Your task to perform on an android device: What's the weather going to be tomorrow? Image 0: 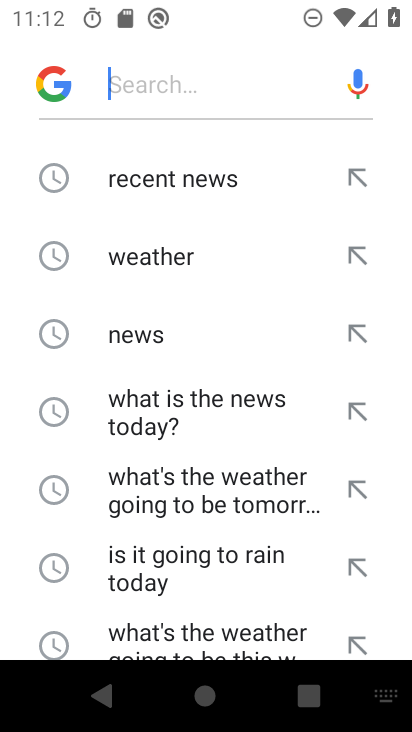
Step 0: press home button
Your task to perform on an android device: What's the weather going to be tomorrow? Image 1: 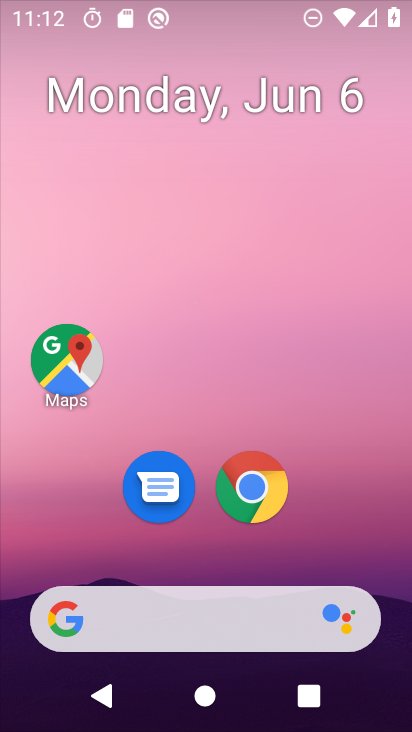
Step 1: drag from (400, 635) to (280, 117)
Your task to perform on an android device: What's the weather going to be tomorrow? Image 2: 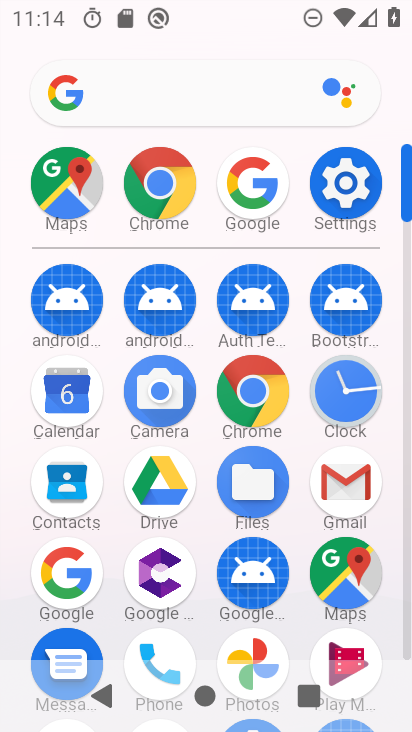
Step 2: click (55, 574)
Your task to perform on an android device: What's the weather going to be tomorrow? Image 3: 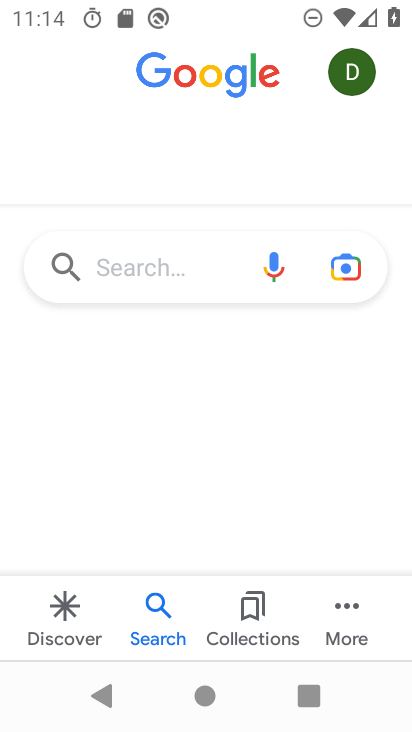
Step 3: click (166, 255)
Your task to perform on an android device: What's the weather going to be tomorrow? Image 4: 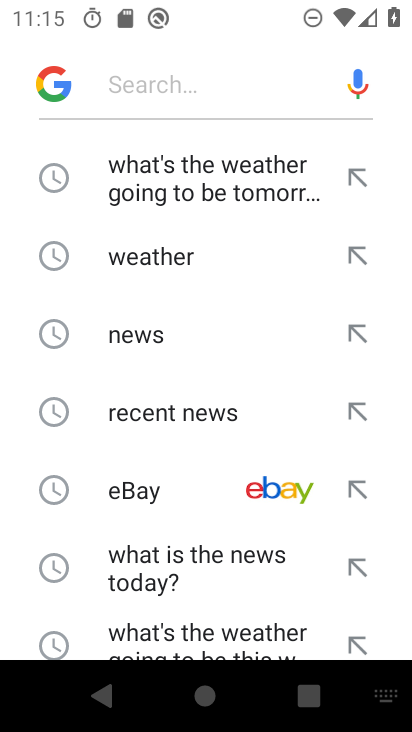
Step 4: click (235, 206)
Your task to perform on an android device: What's the weather going to be tomorrow? Image 5: 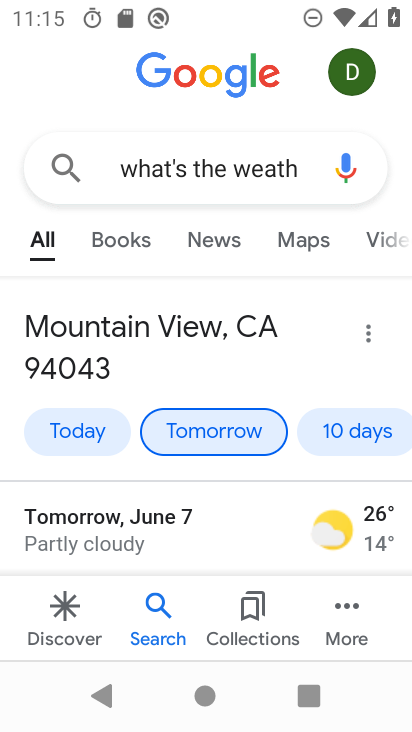
Step 5: task complete